Your task to perform on an android device: add a contact in the contacts app Image 0: 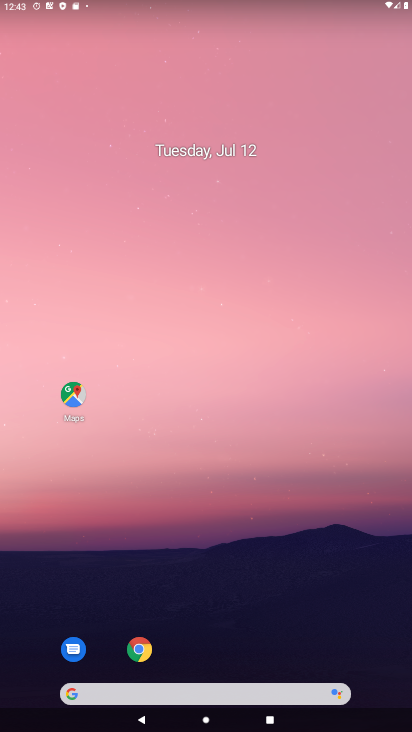
Step 0: drag from (365, 681) to (12, 421)
Your task to perform on an android device: add a contact in the contacts app Image 1: 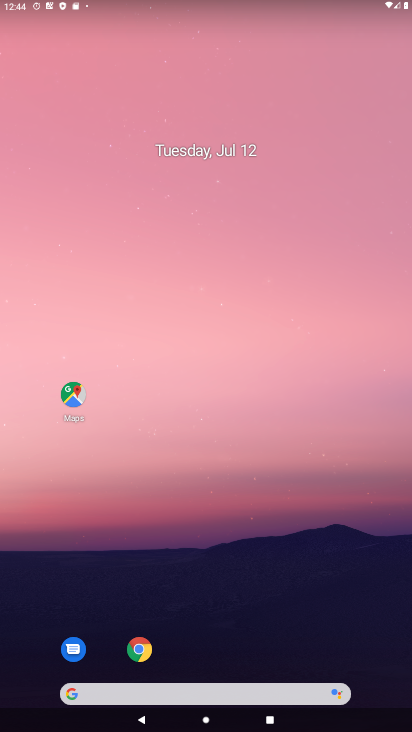
Step 1: drag from (364, 686) to (214, 47)
Your task to perform on an android device: add a contact in the contacts app Image 2: 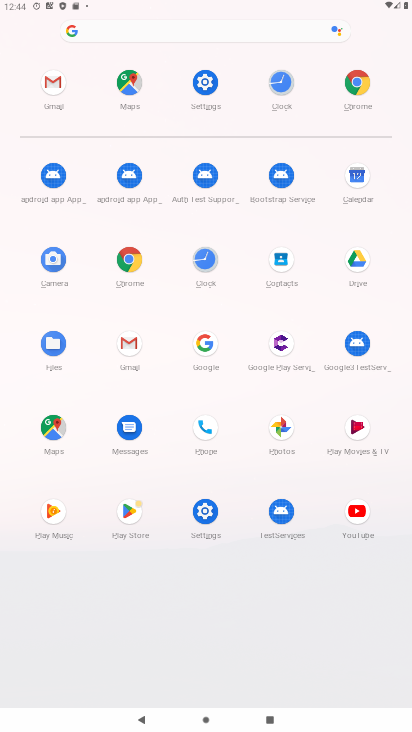
Step 2: click (287, 272)
Your task to perform on an android device: add a contact in the contacts app Image 3: 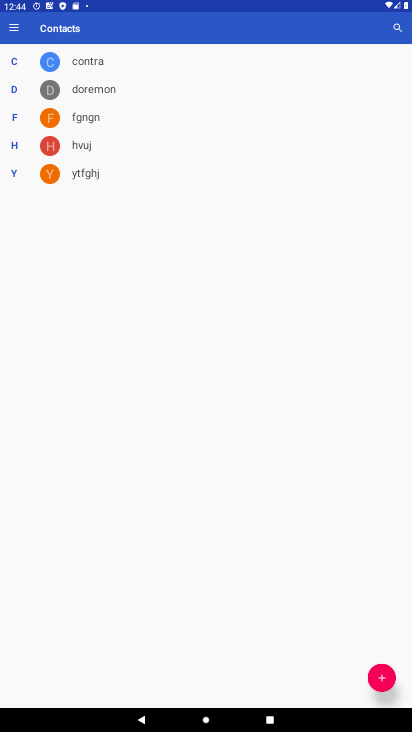
Step 3: click (387, 682)
Your task to perform on an android device: add a contact in the contacts app Image 4: 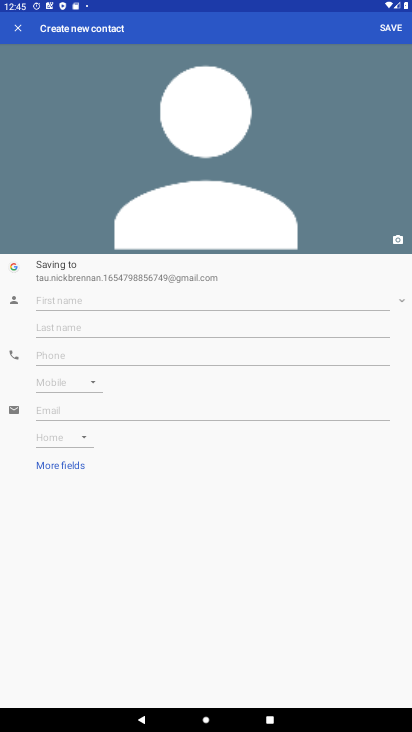
Step 4: type "dilijit"
Your task to perform on an android device: add a contact in the contacts app Image 5: 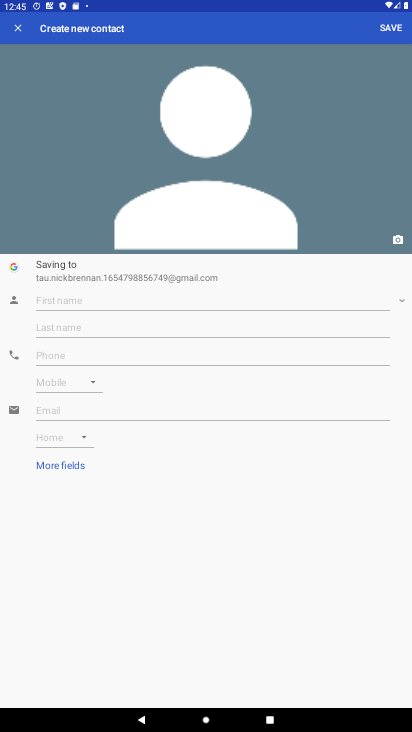
Step 5: click (390, 28)
Your task to perform on an android device: add a contact in the contacts app Image 6: 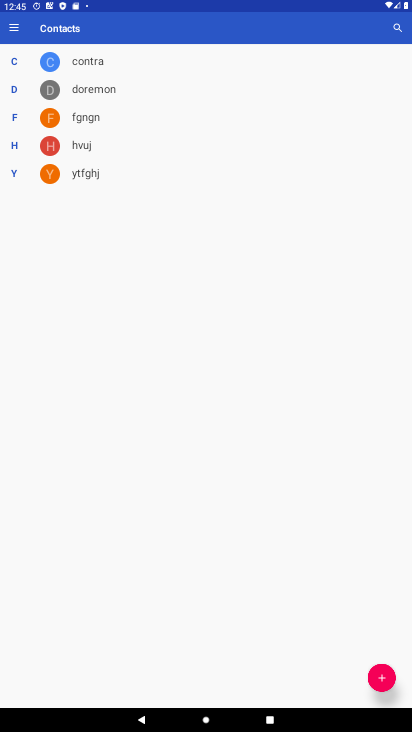
Step 6: task complete